Your task to perform on an android device: Search for Italian restaurants on Maps Image 0: 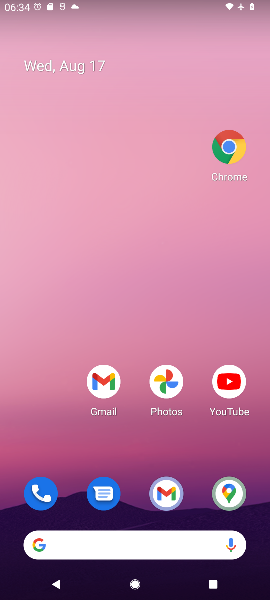
Step 0: press home button
Your task to perform on an android device: Search for Italian restaurants on Maps Image 1: 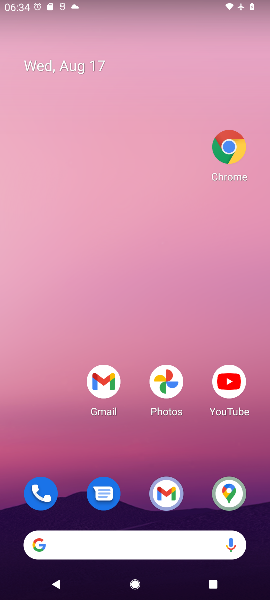
Step 1: click (232, 494)
Your task to perform on an android device: Search for Italian restaurants on Maps Image 2: 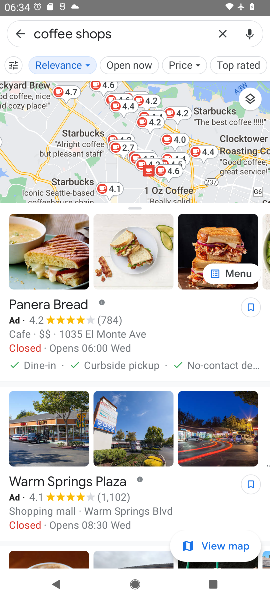
Step 2: click (223, 36)
Your task to perform on an android device: Search for Italian restaurants on Maps Image 3: 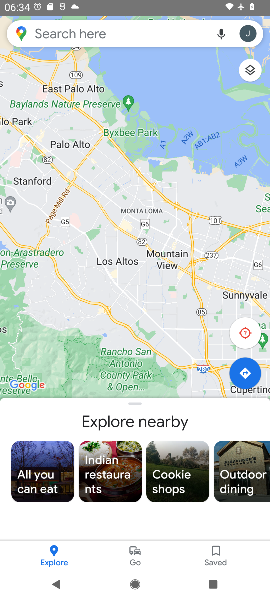
Step 3: click (95, 39)
Your task to perform on an android device: Search for Italian restaurants on Maps Image 4: 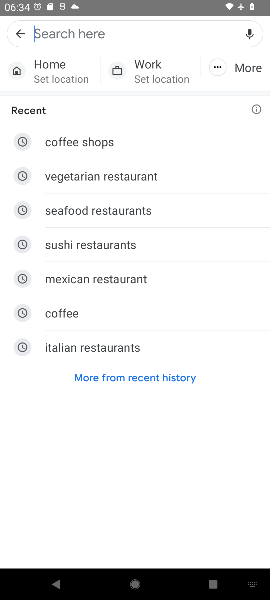
Step 4: click (97, 351)
Your task to perform on an android device: Search for Italian restaurants on Maps Image 5: 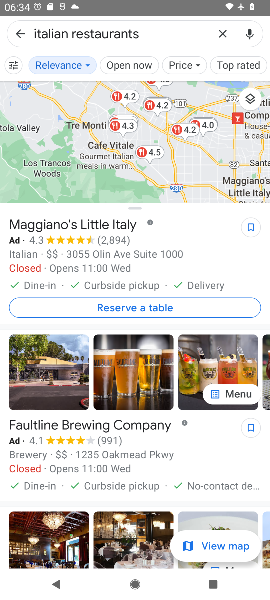
Step 5: task complete